Your task to perform on an android device: turn on data saver in the chrome app Image 0: 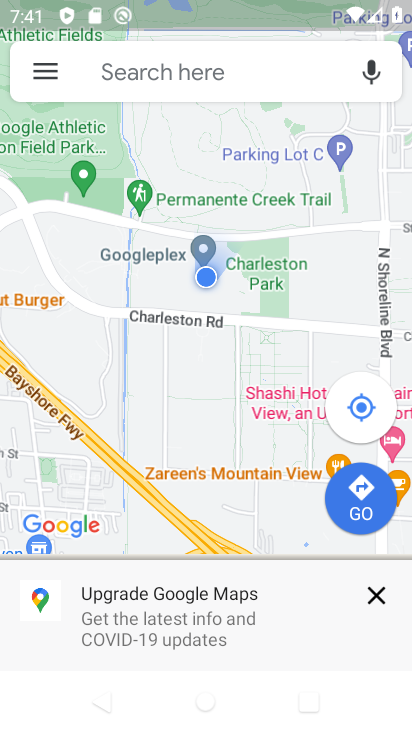
Step 0: press home button
Your task to perform on an android device: turn on data saver in the chrome app Image 1: 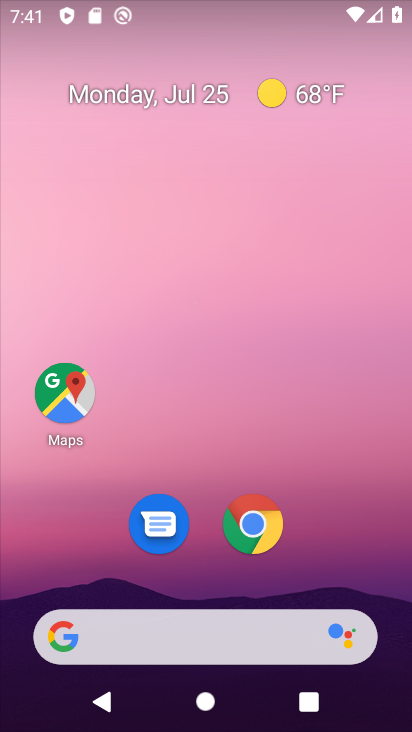
Step 1: click (264, 519)
Your task to perform on an android device: turn on data saver in the chrome app Image 2: 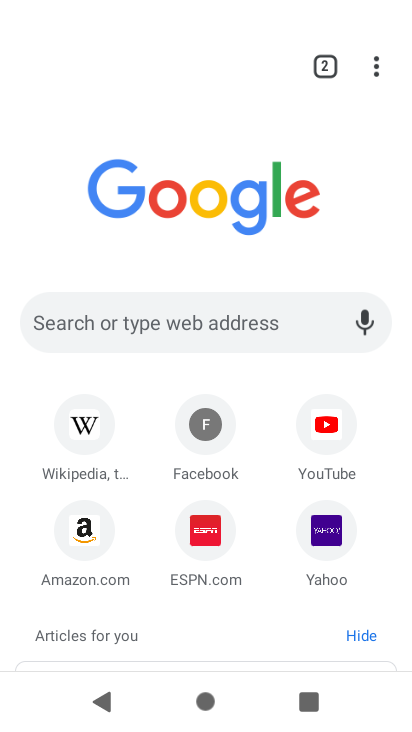
Step 2: click (377, 71)
Your task to perform on an android device: turn on data saver in the chrome app Image 3: 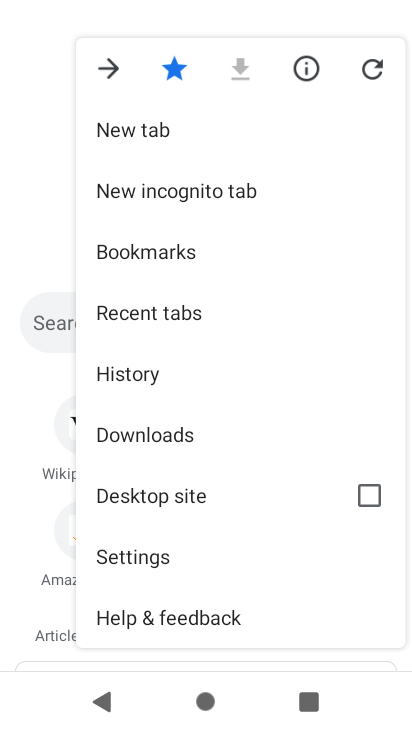
Step 3: click (151, 556)
Your task to perform on an android device: turn on data saver in the chrome app Image 4: 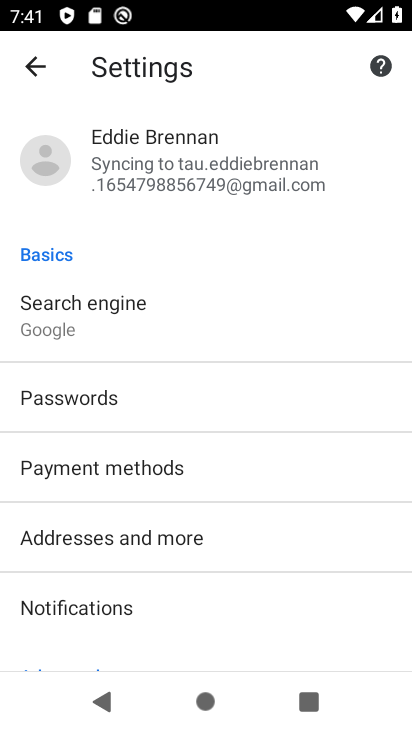
Step 4: drag from (151, 556) to (162, 308)
Your task to perform on an android device: turn on data saver in the chrome app Image 5: 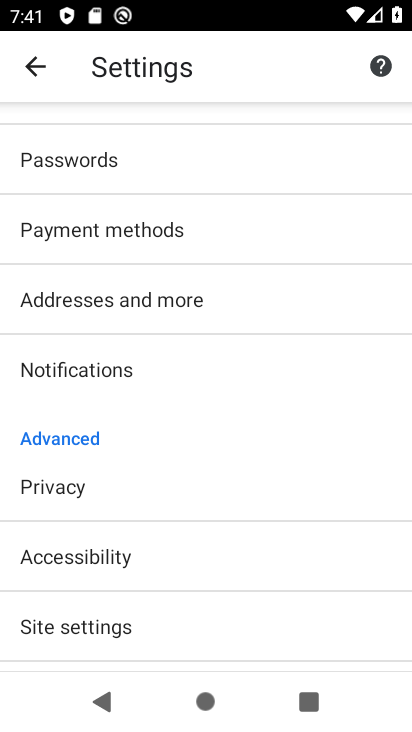
Step 5: drag from (157, 488) to (199, 99)
Your task to perform on an android device: turn on data saver in the chrome app Image 6: 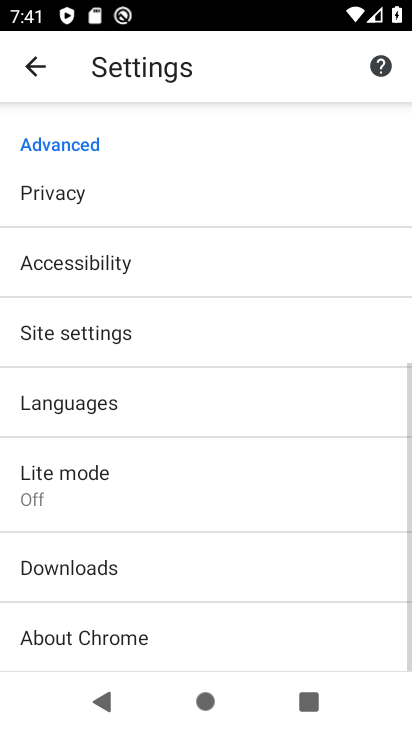
Step 6: click (149, 471)
Your task to perform on an android device: turn on data saver in the chrome app Image 7: 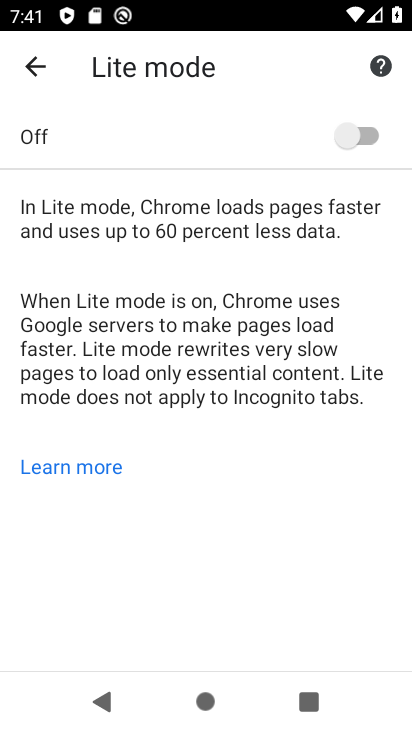
Step 7: click (356, 133)
Your task to perform on an android device: turn on data saver in the chrome app Image 8: 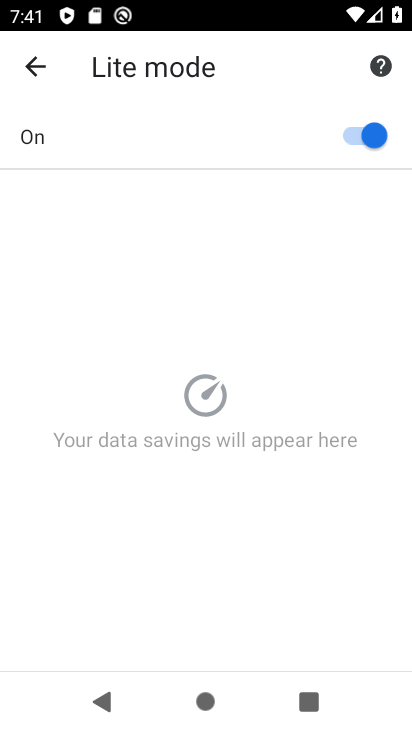
Step 8: task complete